Your task to perform on an android device: toggle pop-ups in chrome Image 0: 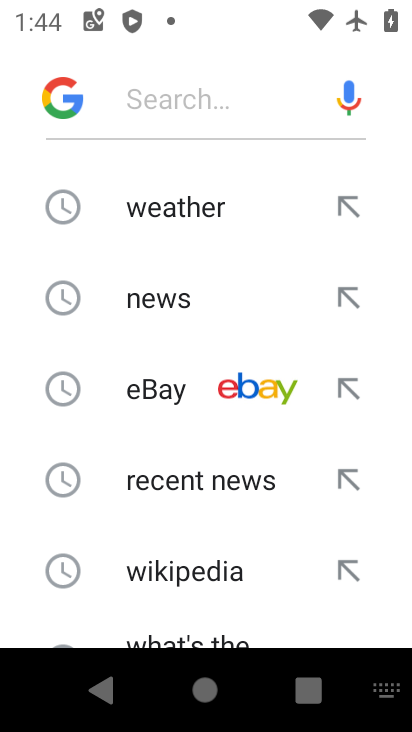
Step 0: press home button
Your task to perform on an android device: toggle pop-ups in chrome Image 1: 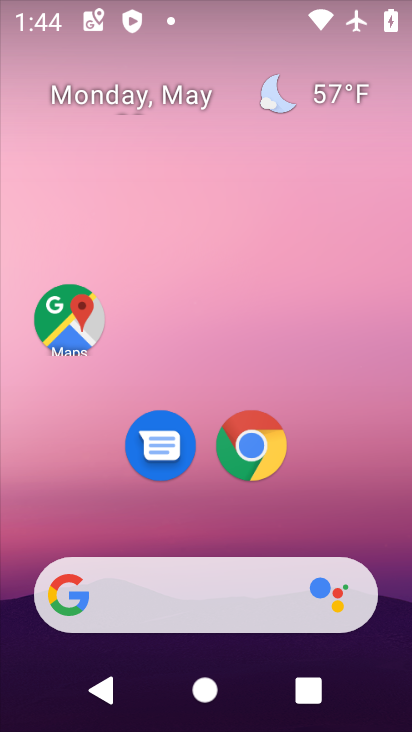
Step 1: click (253, 446)
Your task to perform on an android device: toggle pop-ups in chrome Image 2: 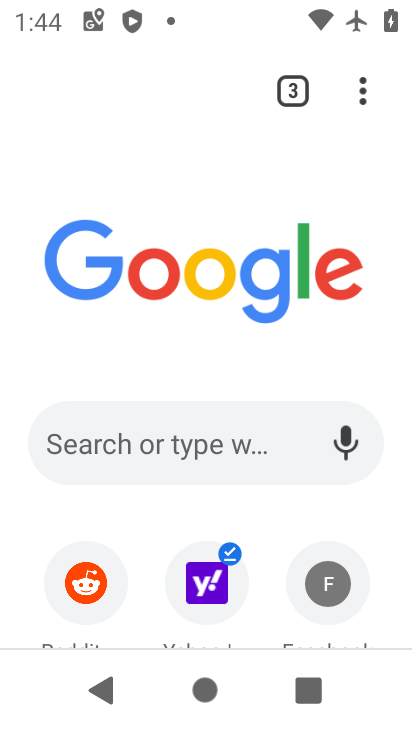
Step 2: click (346, 90)
Your task to perform on an android device: toggle pop-ups in chrome Image 3: 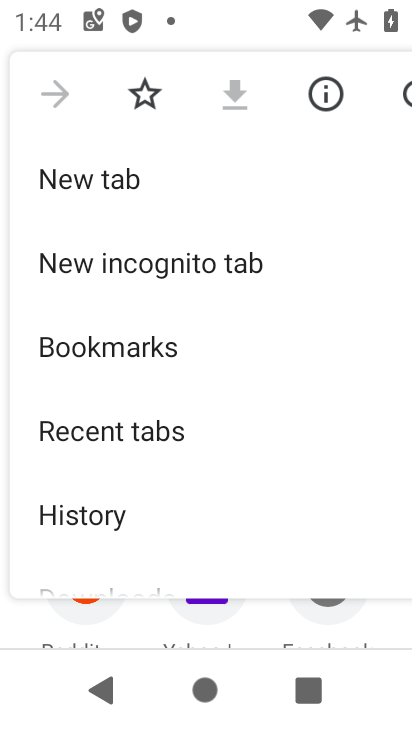
Step 3: drag from (118, 506) to (197, 121)
Your task to perform on an android device: toggle pop-ups in chrome Image 4: 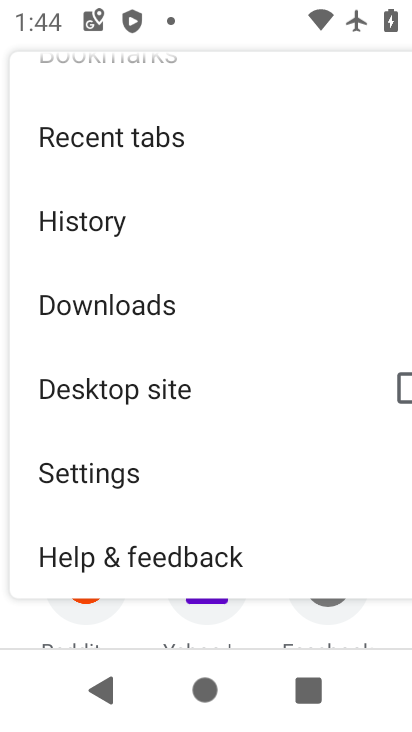
Step 4: click (80, 480)
Your task to perform on an android device: toggle pop-ups in chrome Image 5: 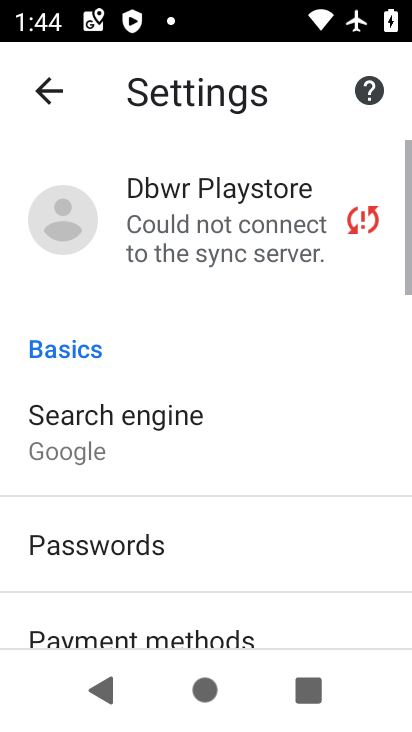
Step 5: drag from (235, 511) to (247, 43)
Your task to perform on an android device: toggle pop-ups in chrome Image 6: 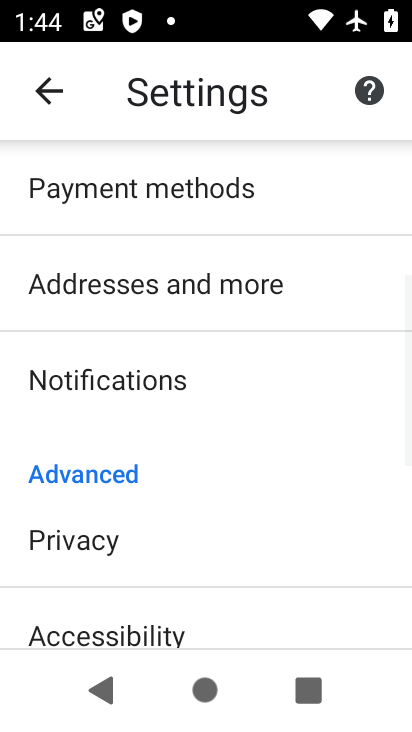
Step 6: drag from (126, 558) to (189, 121)
Your task to perform on an android device: toggle pop-ups in chrome Image 7: 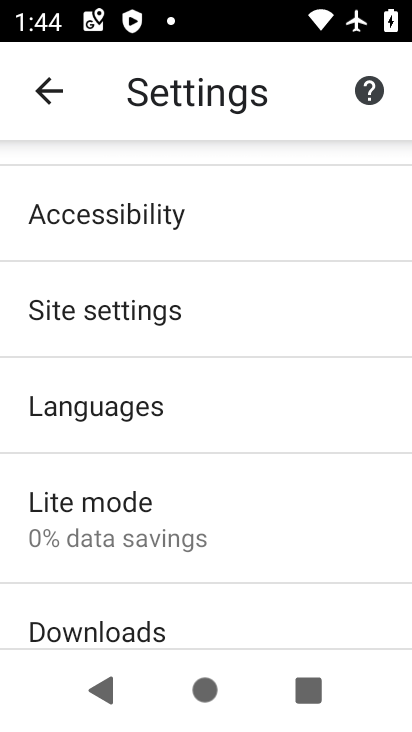
Step 7: click (111, 318)
Your task to perform on an android device: toggle pop-ups in chrome Image 8: 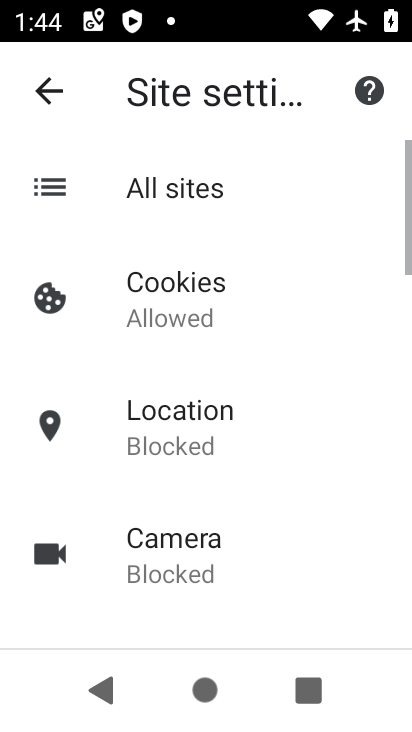
Step 8: drag from (228, 538) to (266, 93)
Your task to perform on an android device: toggle pop-ups in chrome Image 9: 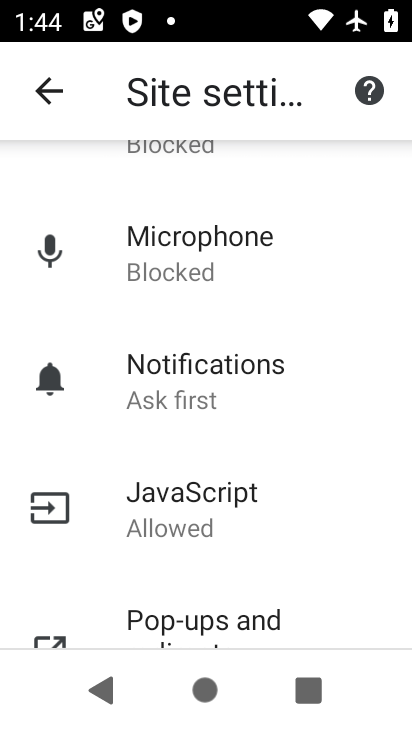
Step 9: click (227, 617)
Your task to perform on an android device: toggle pop-ups in chrome Image 10: 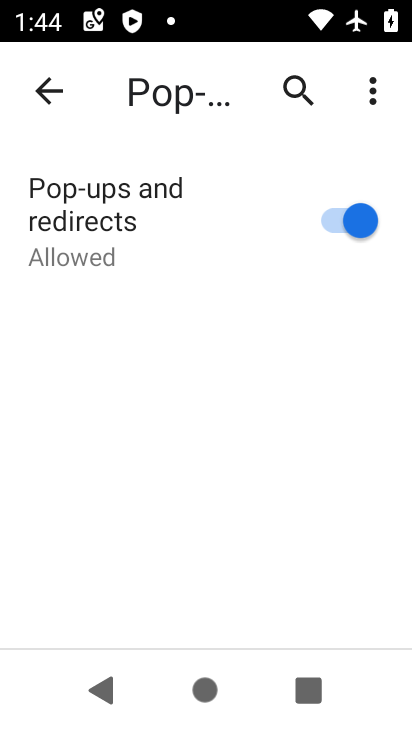
Step 10: click (349, 220)
Your task to perform on an android device: toggle pop-ups in chrome Image 11: 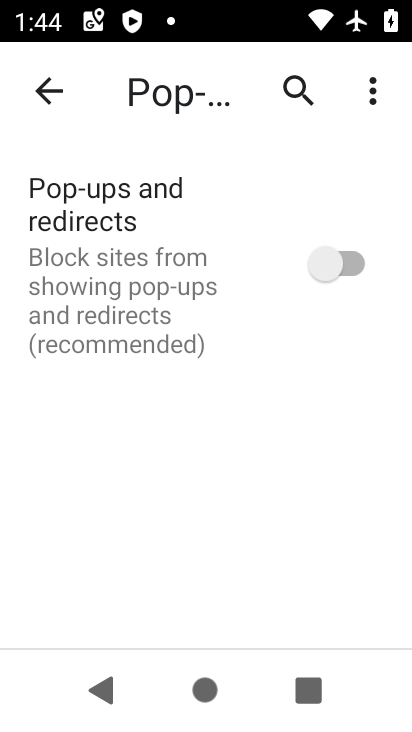
Step 11: task complete